Your task to perform on an android device: toggle data saver in the chrome app Image 0: 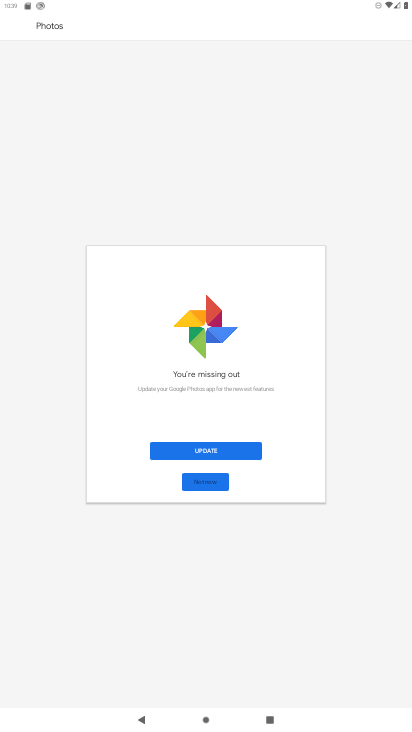
Step 0: press home button
Your task to perform on an android device: toggle data saver in the chrome app Image 1: 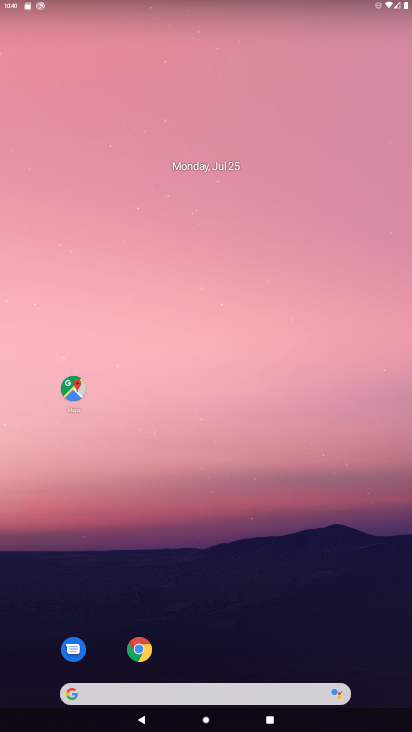
Step 1: click (136, 651)
Your task to perform on an android device: toggle data saver in the chrome app Image 2: 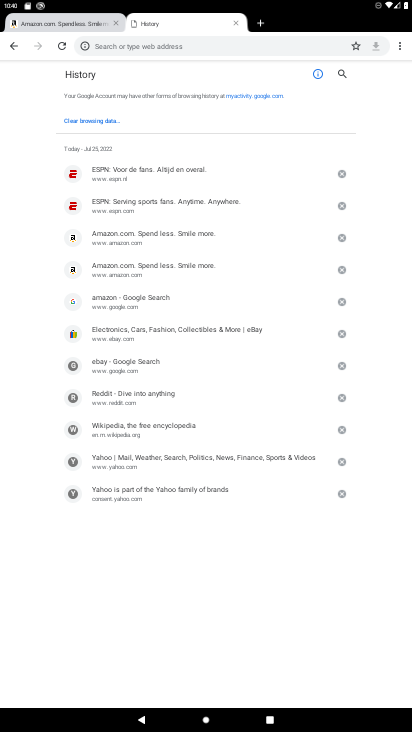
Step 2: click (398, 49)
Your task to perform on an android device: toggle data saver in the chrome app Image 3: 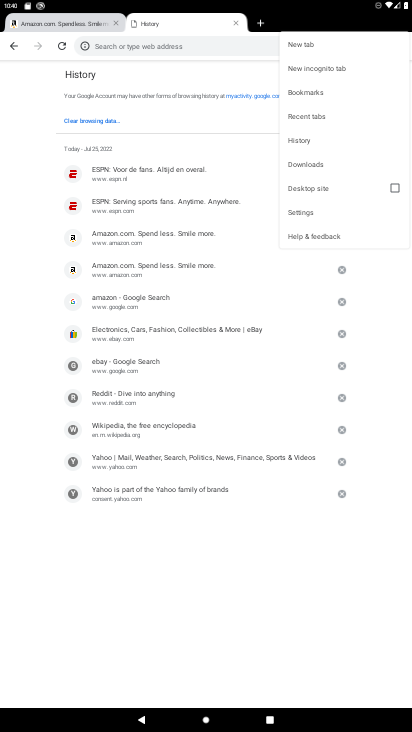
Step 3: click (305, 211)
Your task to perform on an android device: toggle data saver in the chrome app Image 4: 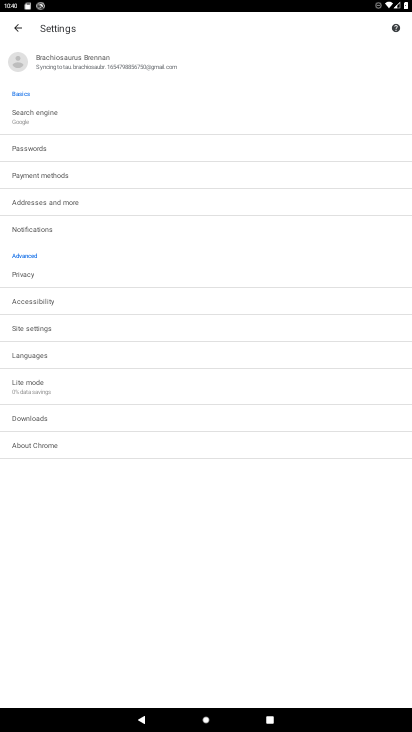
Step 4: click (25, 380)
Your task to perform on an android device: toggle data saver in the chrome app Image 5: 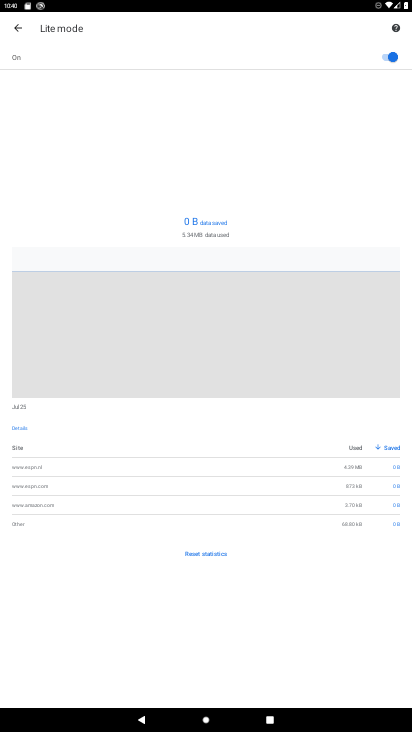
Step 5: click (383, 56)
Your task to perform on an android device: toggle data saver in the chrome app Image 6: 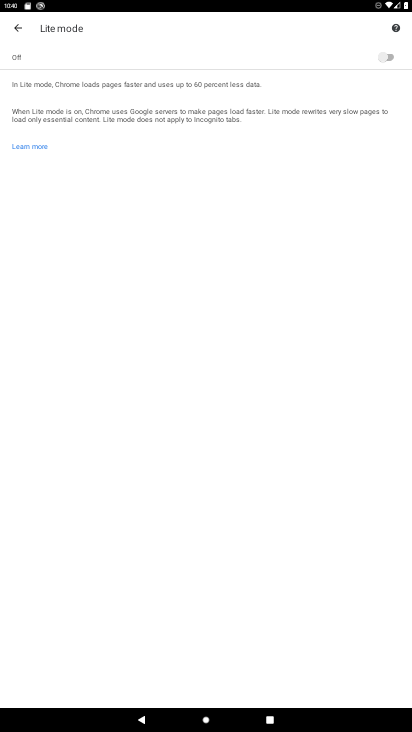
Step 6: task complete